Your task to perform on an android device: add a label to a message in the gmail app Image 0: 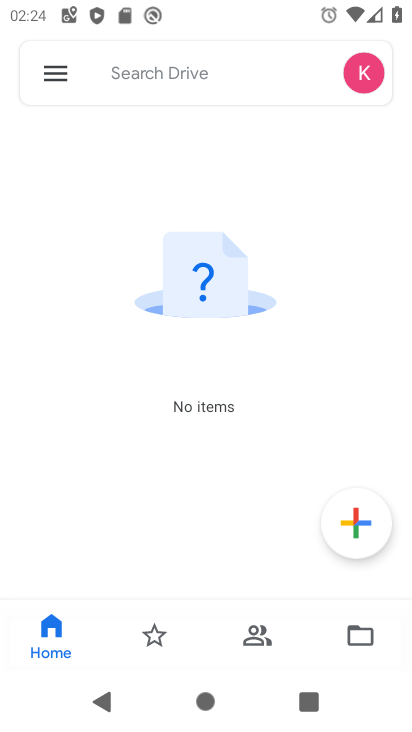
Step 0: press home button
Your task to perform on an android device: add a label to a message in the gmail app Image 1: 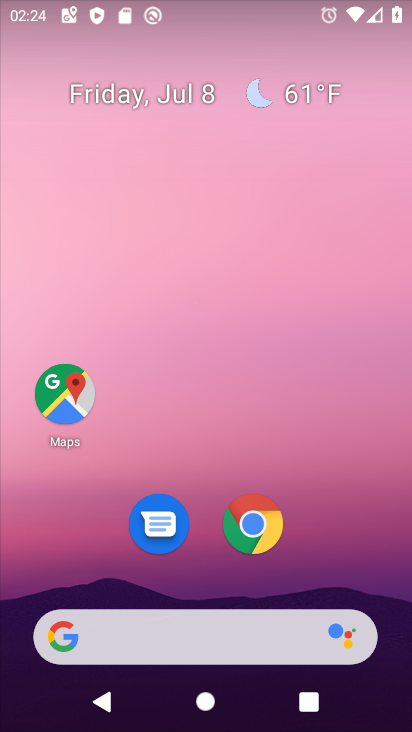
Step 1: drag from (353, 539) to (321, 128)
Your task to perform on an android device: add a label to a message in the gmail app Image 2: 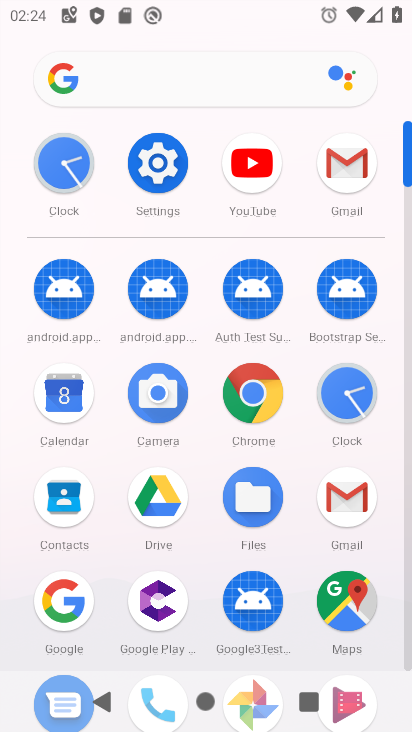
Step 2: click (344, 182)
Your task to perform on an android device: add a label to a message in the gmail app Image 3: 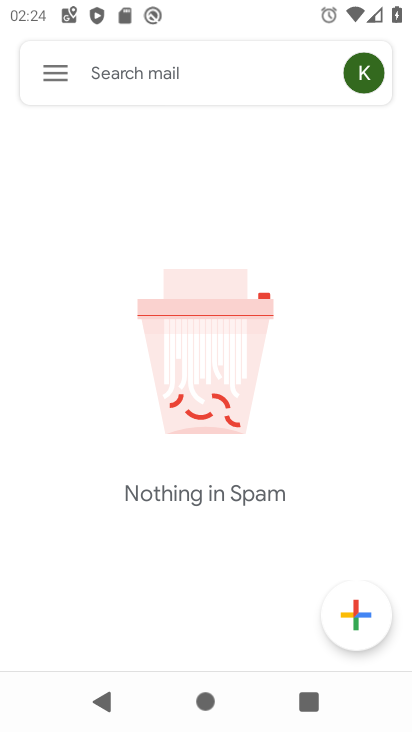
Step 3: click (53, 73)
Your task to perform on an android device: add a label to a message in the gmail app Image 4: 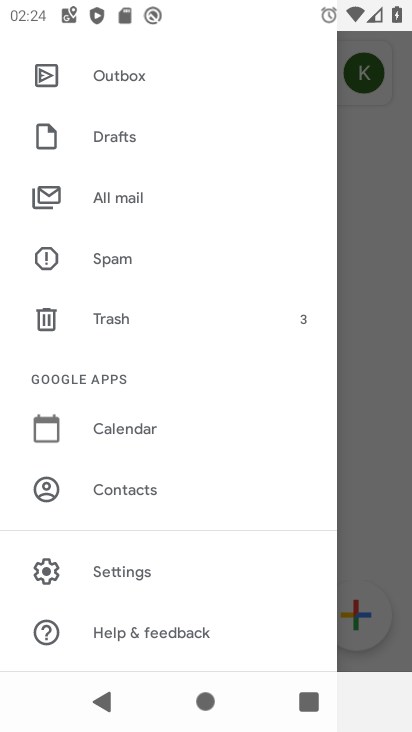
Step 4: click (116, 185)
Your task to perform on an android device: add a label to a message in the gmail app Image 5: 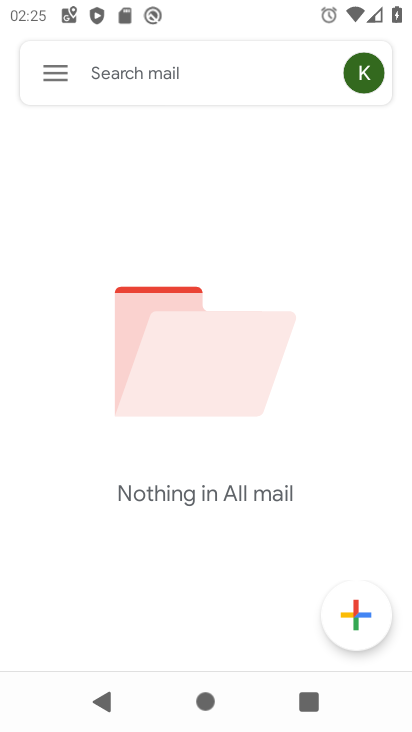
Step 5: task complete